Your task to perform on an android device: Search for Mexican restaurants on Maps Image 0: 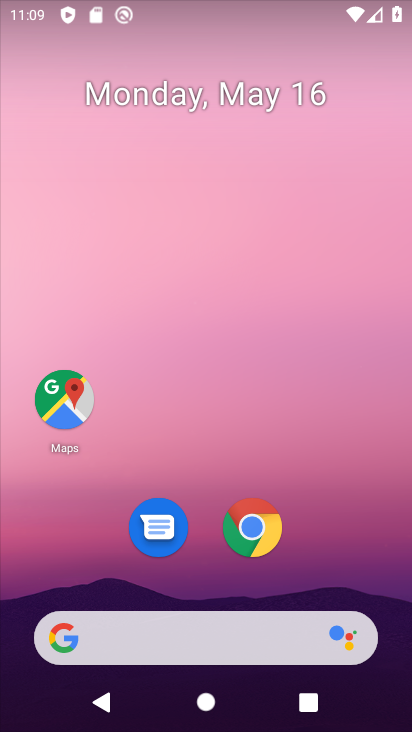
Step 0: drag from (262, 600) to (313, 143)
Your task to perform on an android device: Search for Mexican restaurants on Maps Image 1: 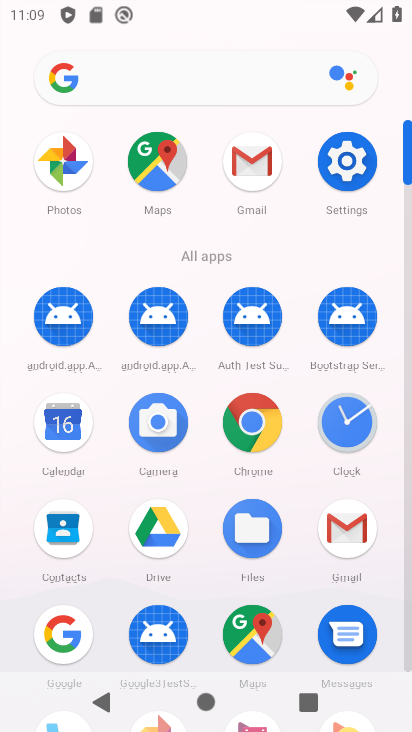
Step 1: click (244, 606)
Your task to perform on an android device: Search for Mexican restaurants on Maps Image 2: 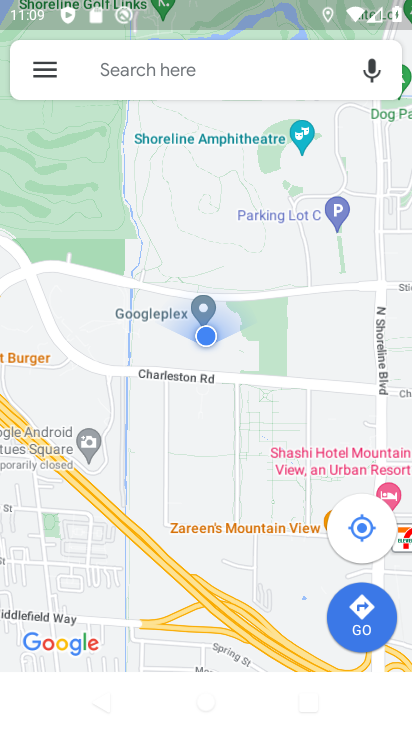
Step 2: click (181, 67)
Your task to perform on an android device: Search for Mexican restaurants on Maps Image 3: 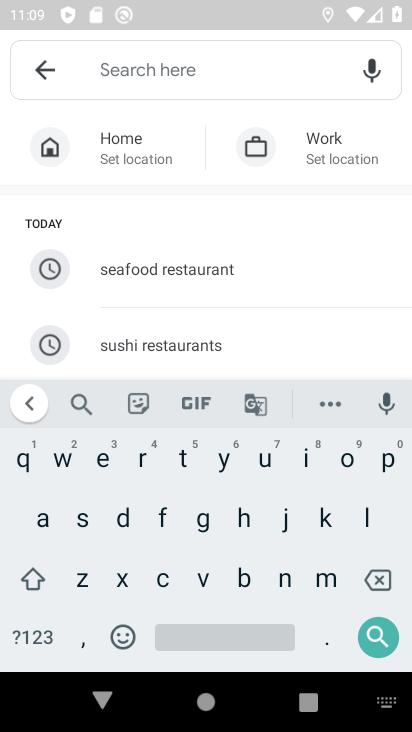
Step 3: click (325, 580)
Your task to perform on an android device: Search for Mexican restaurants on Maps Image 4: 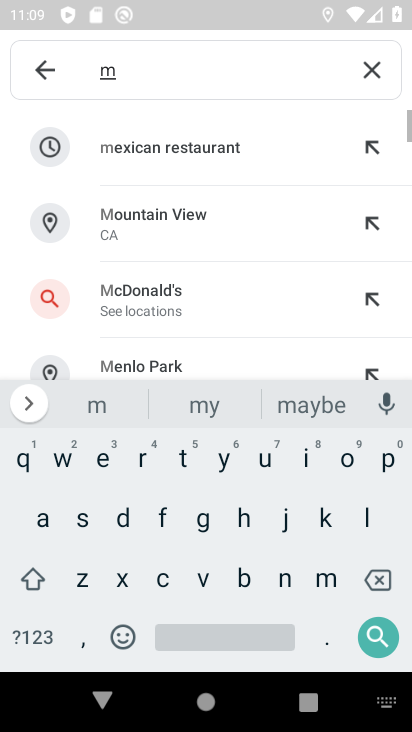
Step 4: click (160, 157)
Your task to perform on an android device: Search for Mexican restaurants on Maps Image 5: 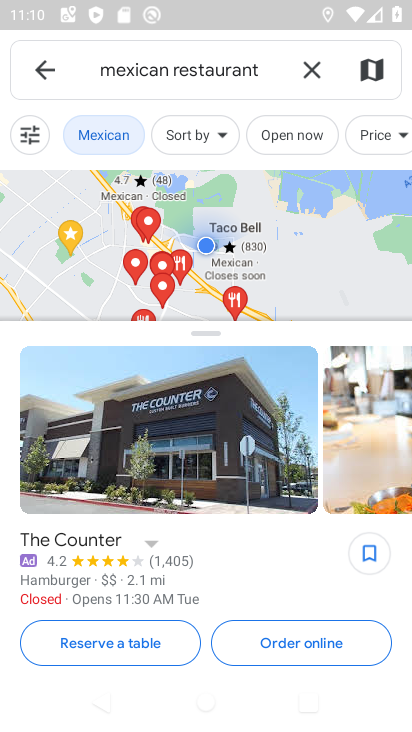
Step 5: click (103, 273)
Your task to perform on an android device: Search for Mexican restaurants on Maps Image 6: 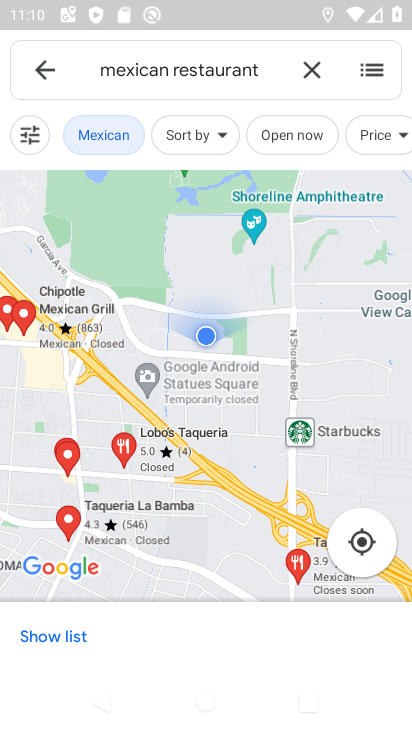
Step 6: task complete